Your task to perform on an android device: Turn on the flashlight Image 0: 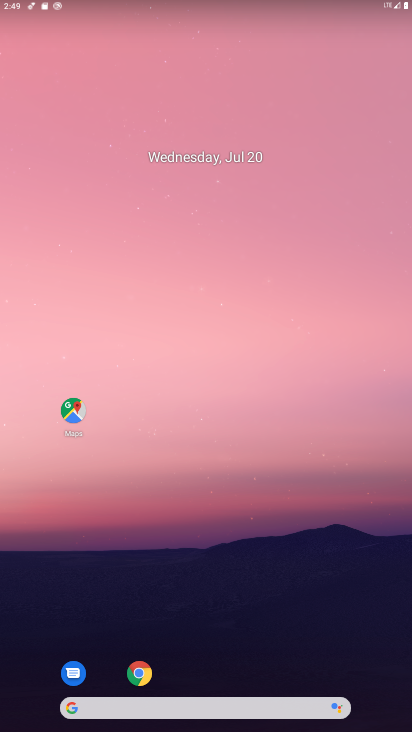
Step 0: drag from (212, 677) to (239, 0)
Your task to perform on an android device: Turn on the flashlight Image 1: 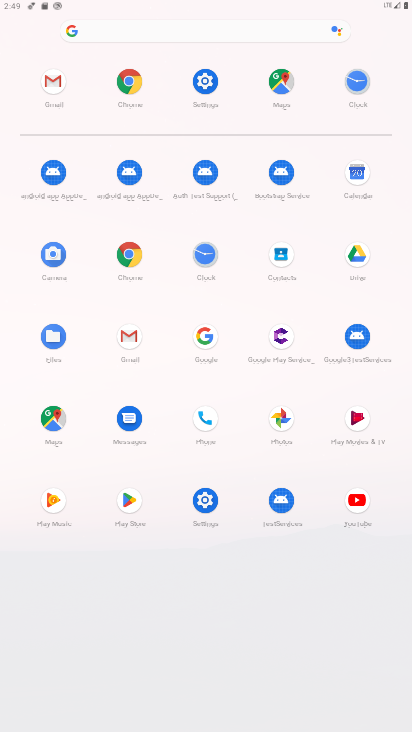
Step 1: click (201, 90)
Your task to perform on an android device: Turn on the flashlight Image 2: 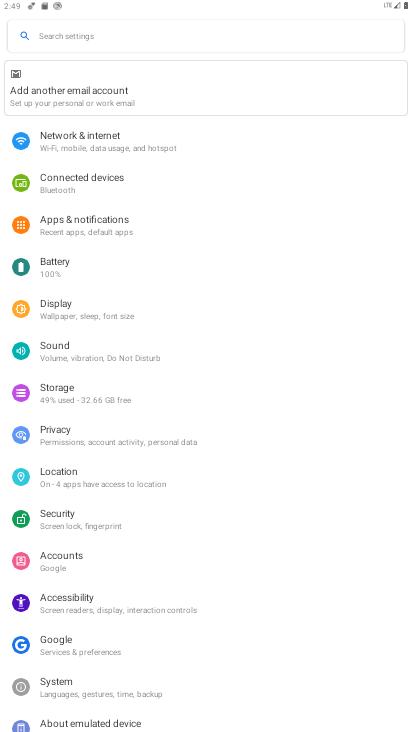
Step 2: click (176, 35)
Your task to perform on an android device: Turn on the flashlight Image 3: 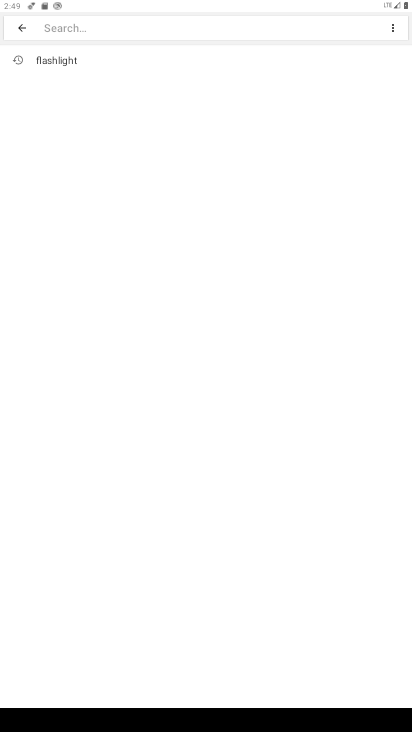
Step 3: type "flashlight"
Your task to perform on an android device: Turn on the flashlight Image 4: 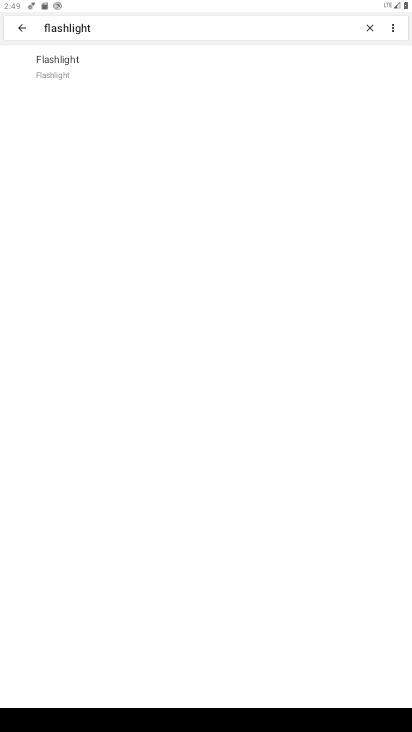
Step 4: click (47, 64)
Your task to perform on an android device: Turn on the flashlight Image 5: 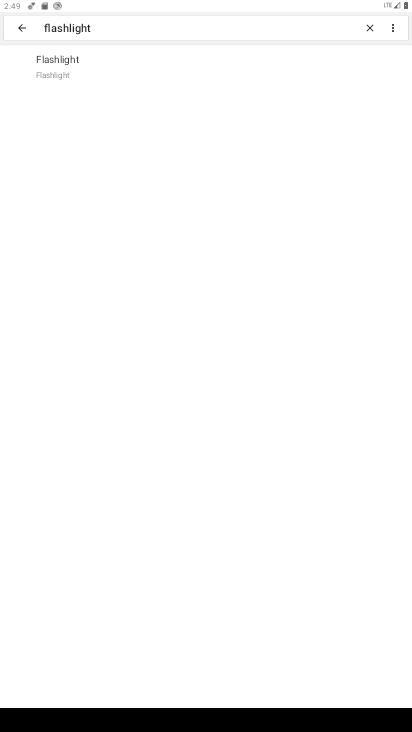
Step 5: click (49, 65)
Your task to perform on an android device: Turn on the flashlight Image 6: 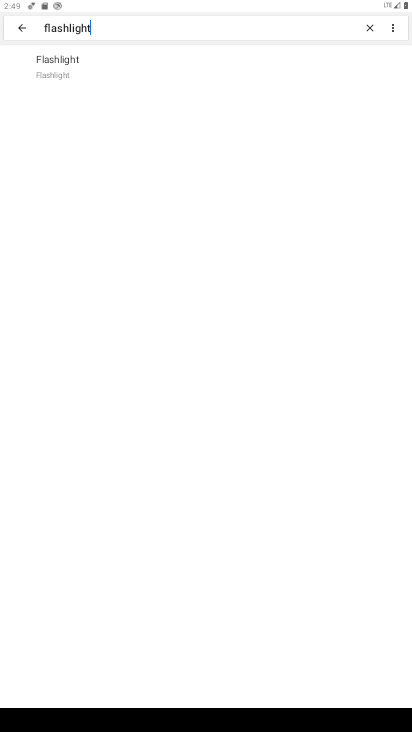
Step 6: task complete